Your task to perform on an android device: Show me popular videos on Youtube Image 0: 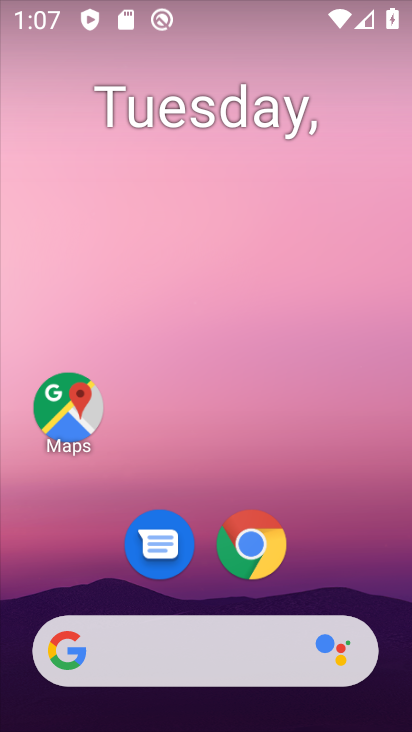
Step 0: drag from (393, 633) to (319, 73)
Your task to perform on an android device: Show me popular videos on Youtube Image 1: 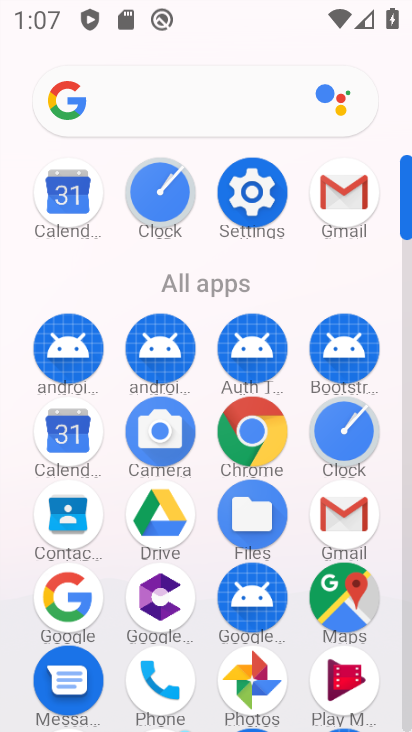
Step 1: click (410, 695)
Your task to perform on an android device: Show me popular videos on Youtube Image 2: 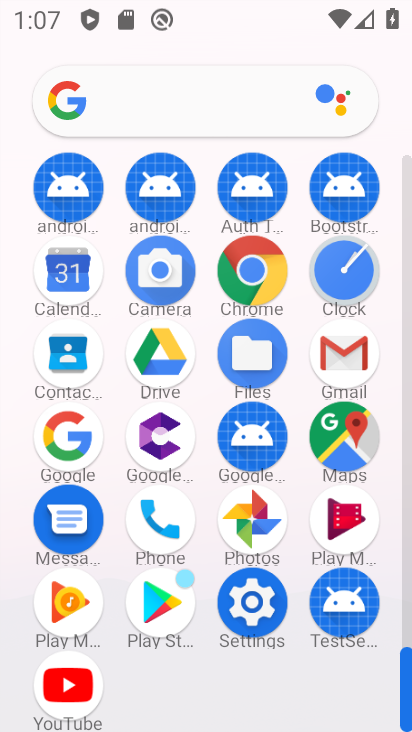
Step 2: click (68, 683)
Your task to perform on an android device: Show me popular videos on Youtube Image 3: 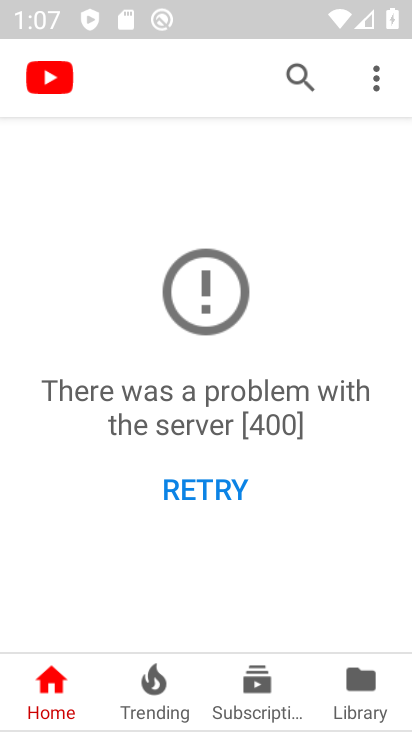
Step 3: click (157, 704)
Your task to perform on an android device: Show me popular videos on Youtube Image 4: 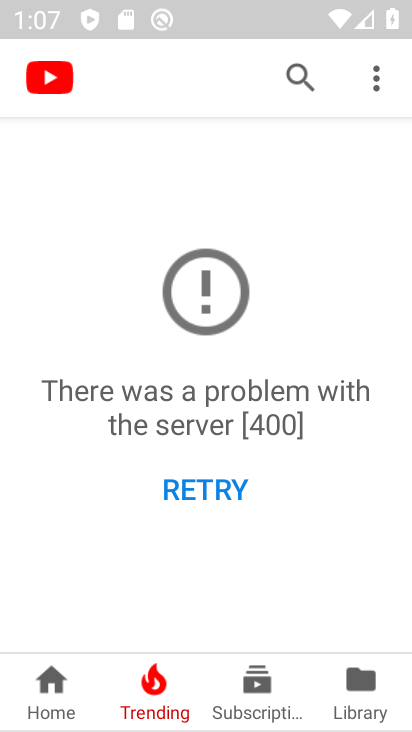
Step 4: click (200, 486)
Your task to perform on an android device: Show me popular videos on Youtube Image 5: 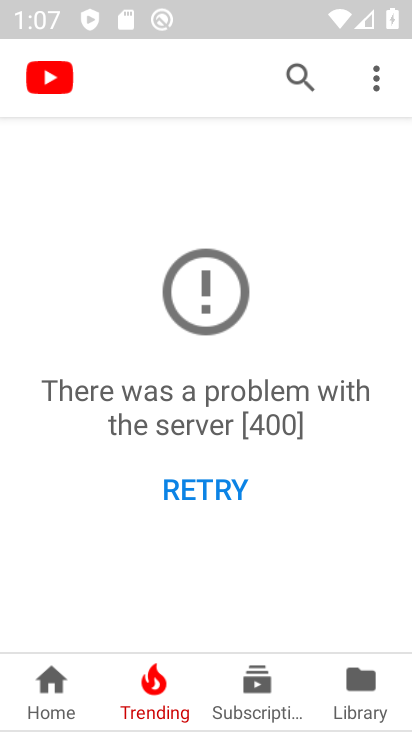
Step 5: click (226, 481)
Your task to perform on an android device: Show me popular videos on Youtube Image 6: 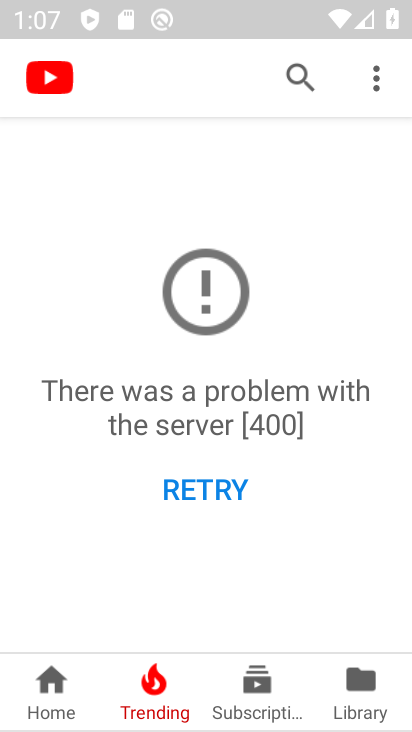
Step 6: task complete